Your task to perform on an android device: Open settings on Google Maps Image 0: 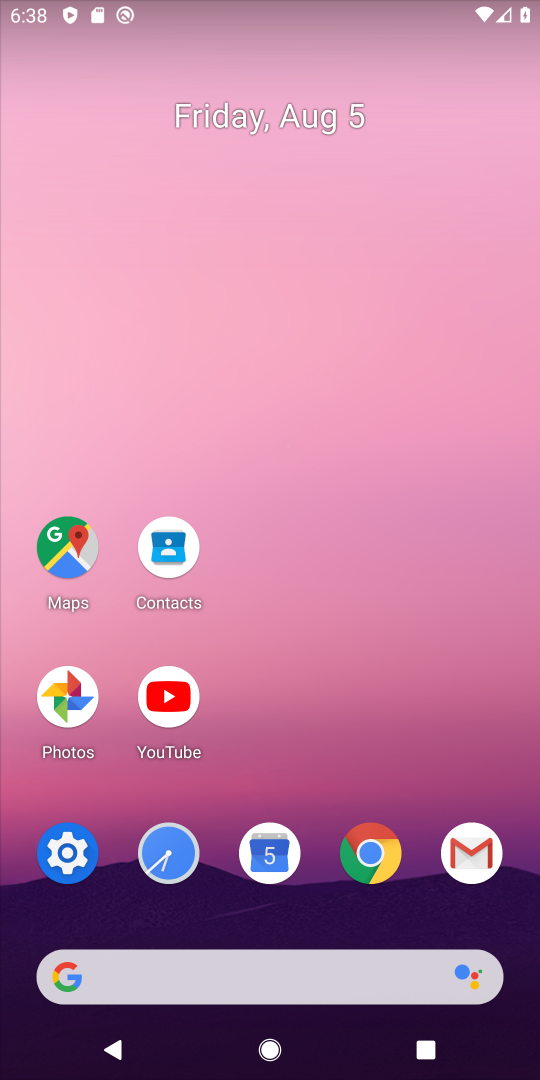
Step 0: click (67, 552)
Your task to perform on an android device: Open settings on Google Maps Image 1: 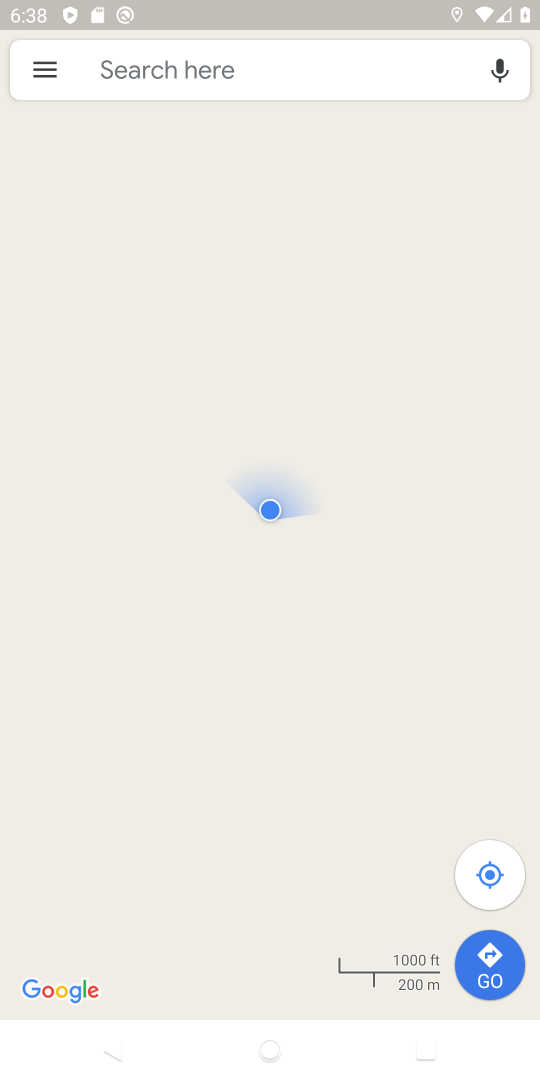
Step 1: click (42, 66)
Your task to perform on an android device: Open settings on Google Maps Image 2: 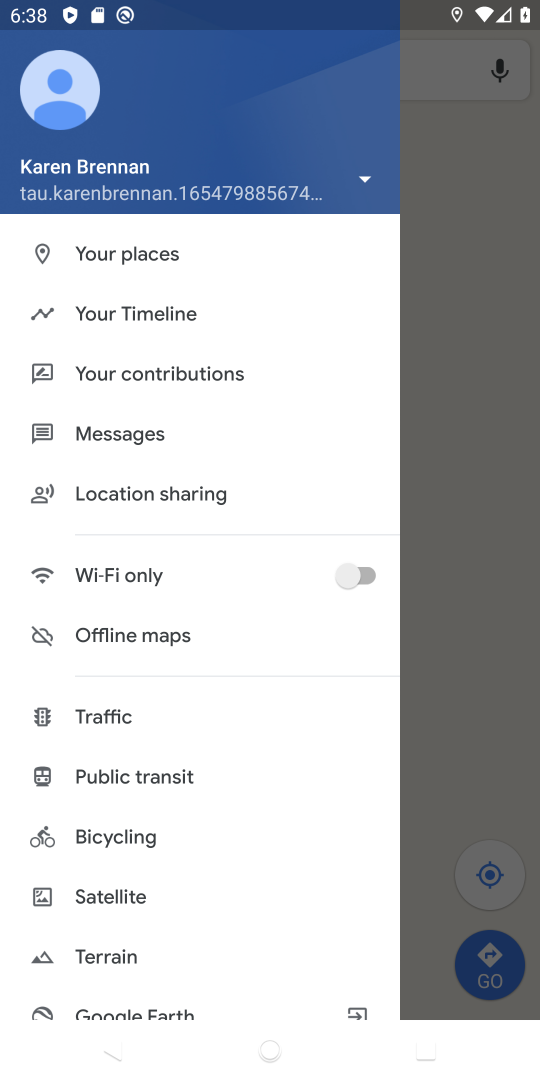
Step 2: drag from (204, 964) to (277, 338)
Your task to perform on an android device: Open settings on Google Maps Image 3: 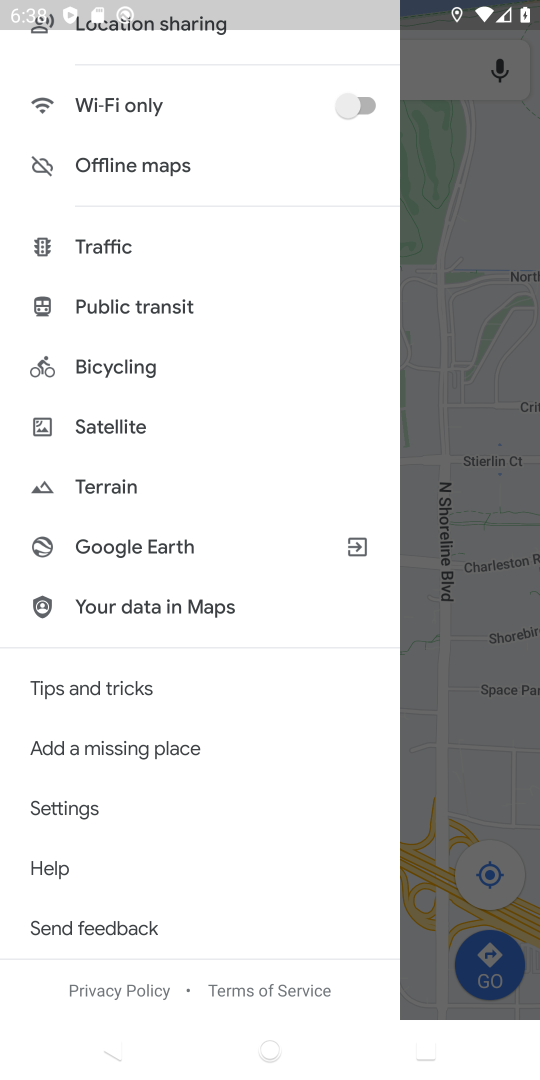
Step 3: click (71, 801)
Your task to perform on an android device: Open settings on Google Maps Image 4: 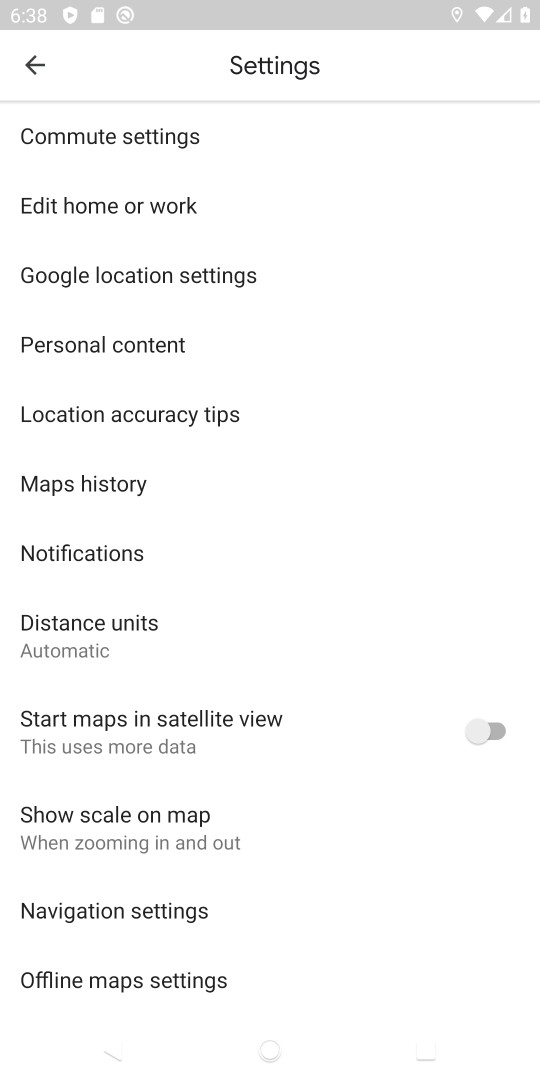
Step 4: task complete